Your task to perform on an android device: change the clock display to show seconds Image 0: 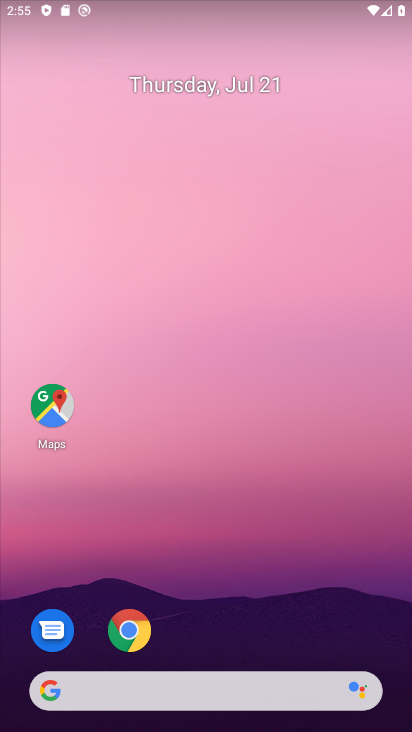
Step 0: drag from (284, 650) to (297, 9)
Your task to perform on an android device: change the clock display to show seconds Image 1: 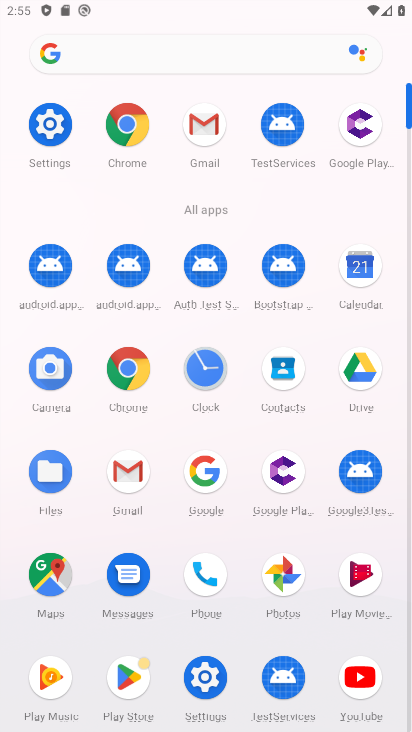
Step 1: click (219, 349)
Your task to perform on an android device: change the clock display to show seconds Image 2: 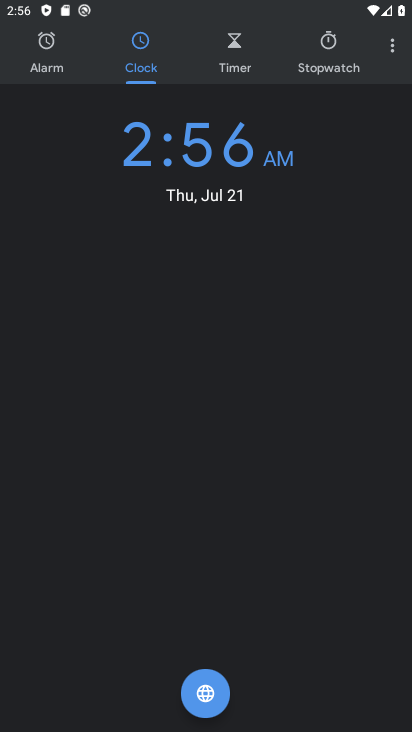
Step 2: click (400, 36)
Your task to perform on an android device: change the clock display to show seconds Image 3: 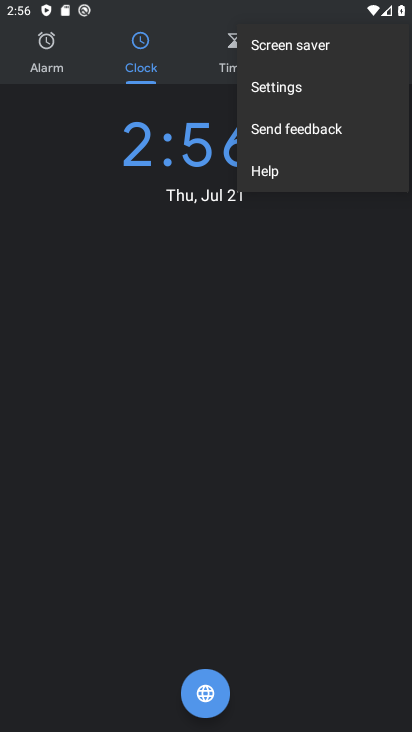
Step 3: click (292, 81)
Your task to perform on an android device: change the clock display to show seconds Image 4: 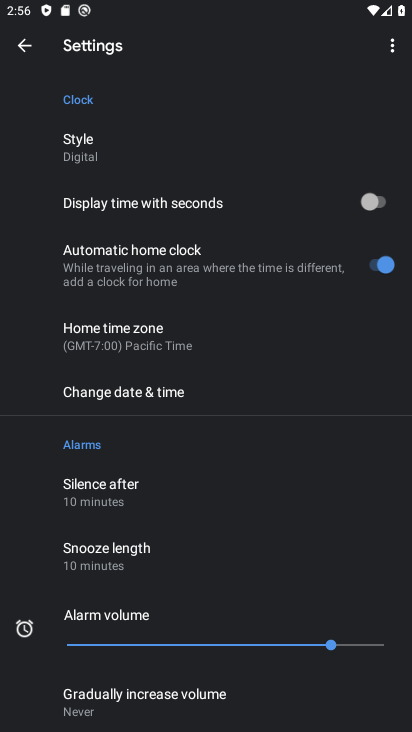
Step 4: click (376, 198)
Your task to perform on an android device: change the clock display to show seconds Image 5: 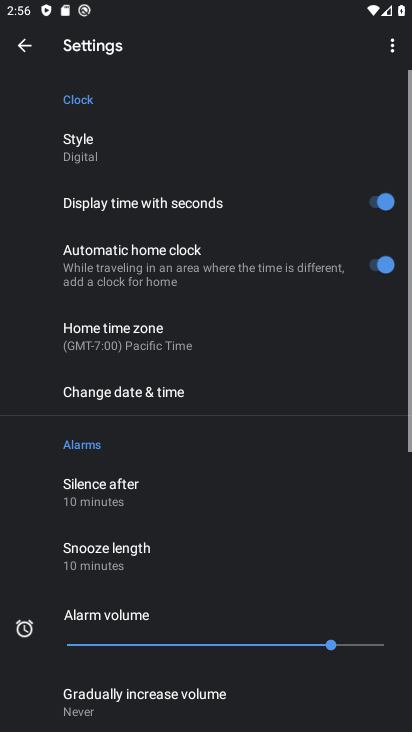
Step 5: task complete